Your task to perform on an android device: see creations saved in the google photos Image 0: 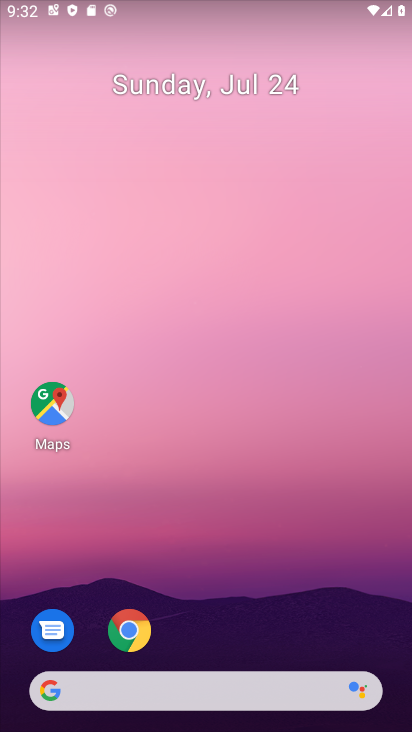
Step 0: drag from (202, 631) to (211, 191)
Your task to perform on an android device: see creations saved in the google photos Image 1: 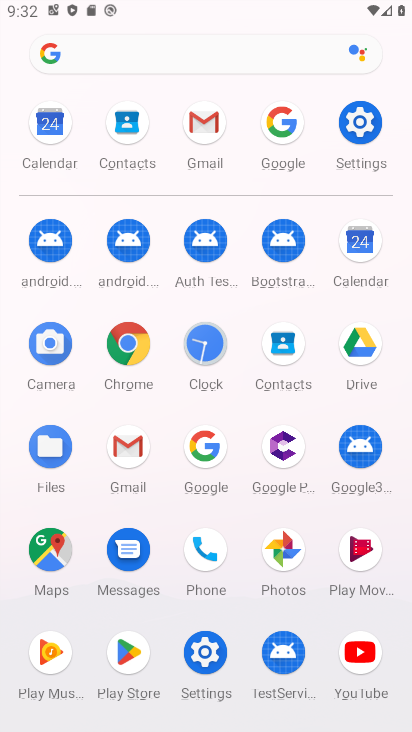
Step 1: click (273, 559)
Your task to perform on an android device: see creations saved in the google photos Image 2: 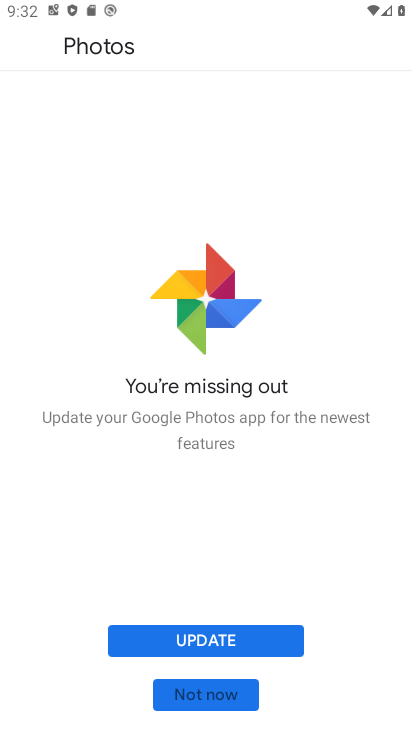
Step 2: click (240, 686)
Your task to perform on an android device: see creations saved in the google photos Image 3: 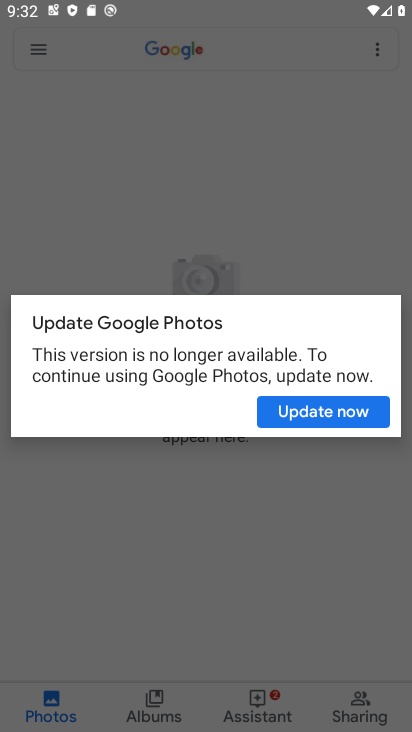
Step 3: click (38, 54)
Your task to perform on an android device: see creations saved in the google photos Image 4: 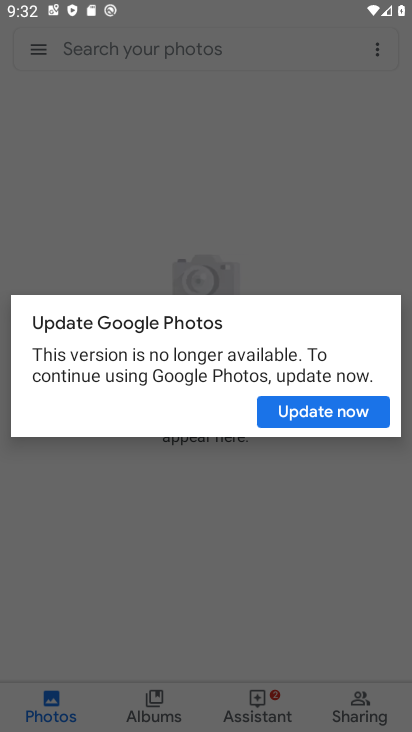
Step 4: click (323, 416)
Your task to perform on an android device: see creations saved in the google photos Image 5: 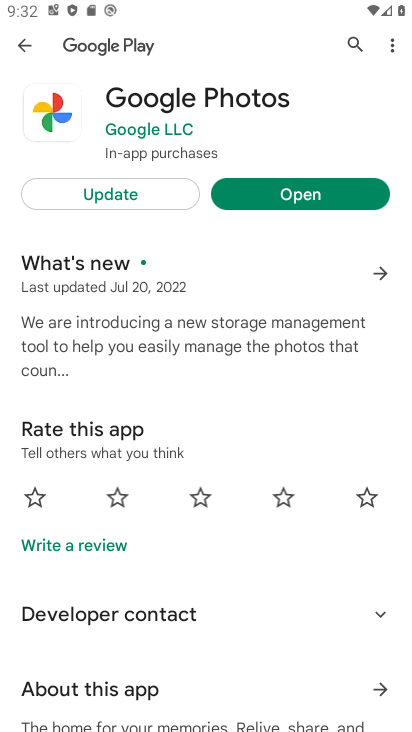
Step 5: click (287, 199)
Your task to perform on an android device: see creations saved in the google photos Image 6: 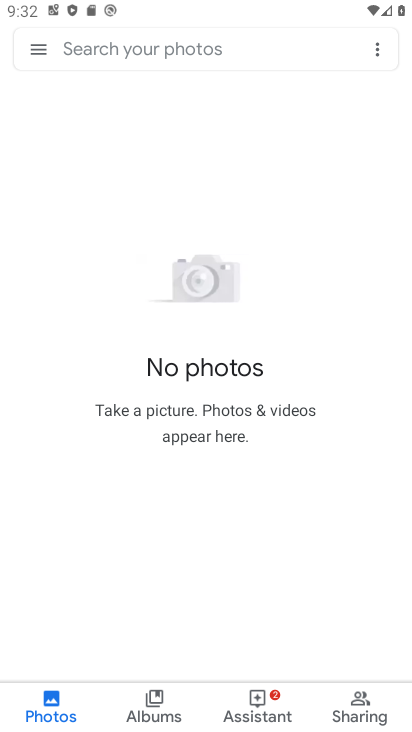
Step 6: click (83, 45)
Your task to perform on an android device: see creations saved in the google photos Image 7: 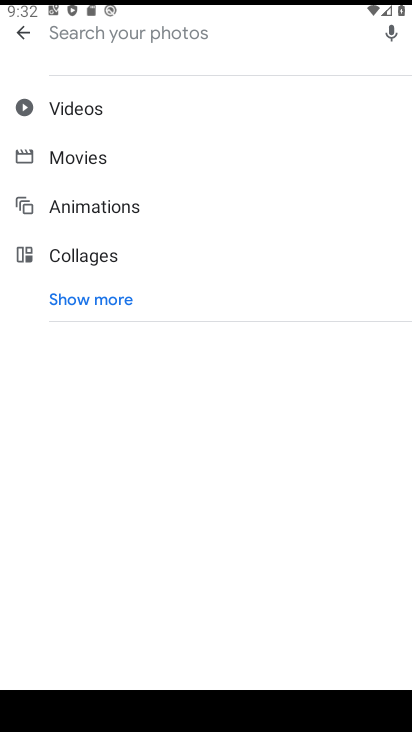
Step 7: click (112, 308)
Your task to perform on an android device: see creations saved in the google photos Image 8: 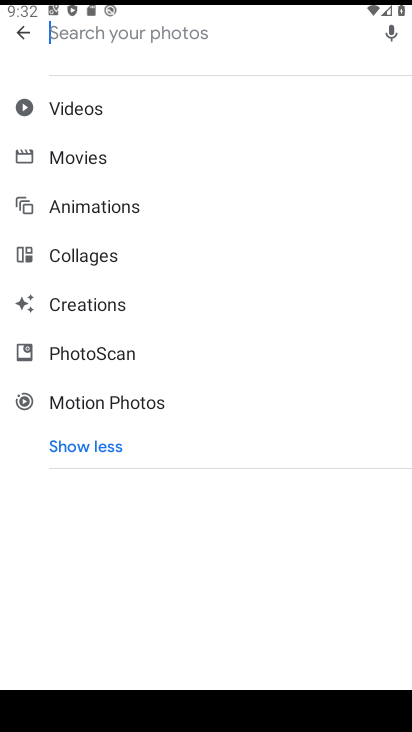
Step 8: click (112, 308)
Your task to perform on an android device: see creations saved in the google photos Image 9: 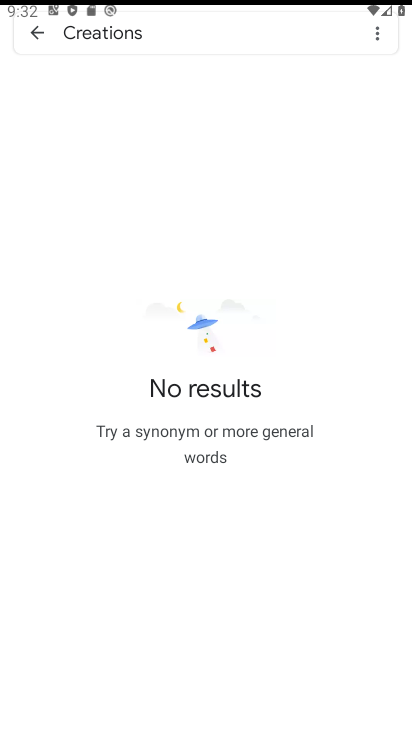
Step 9: task complete